Your task to perform on an android device: clear history in the chrome app Image 0: 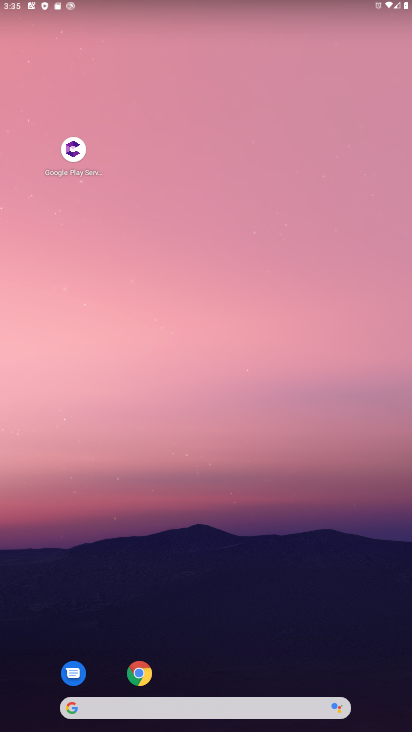
Step 0: click (142, 674)
Your task to perform on an android device: clear history in the chrome app Image 1: 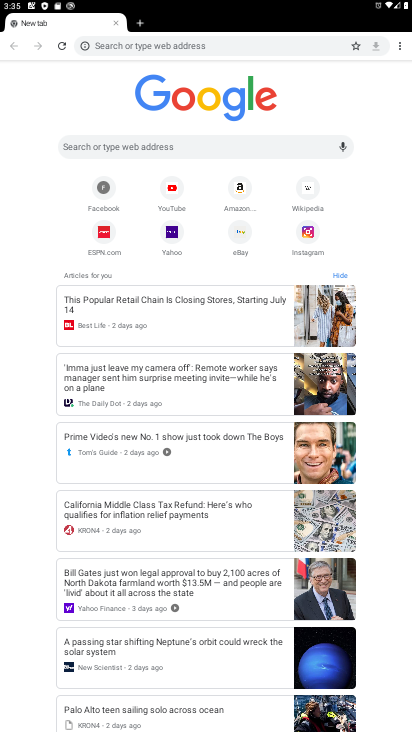
Step 1: click (398, 45)
Your task to perform on an android device: clear history in the chrome app Image 2: 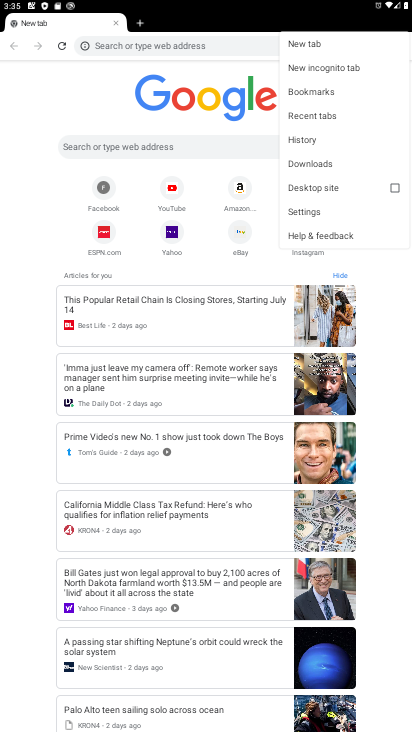
Step 2: click (311, 139)
Your task to perform on an android device: clear history in the chrome app Image 3: 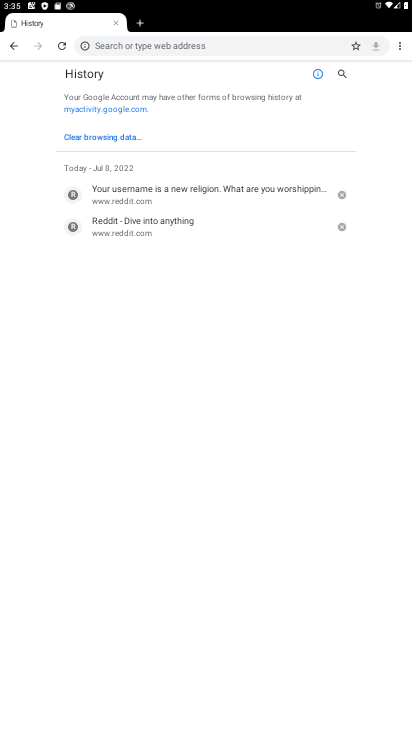
Step 3: click (105, 136)
Your task to perform on an android device: clear history in the chrome app Image 4: 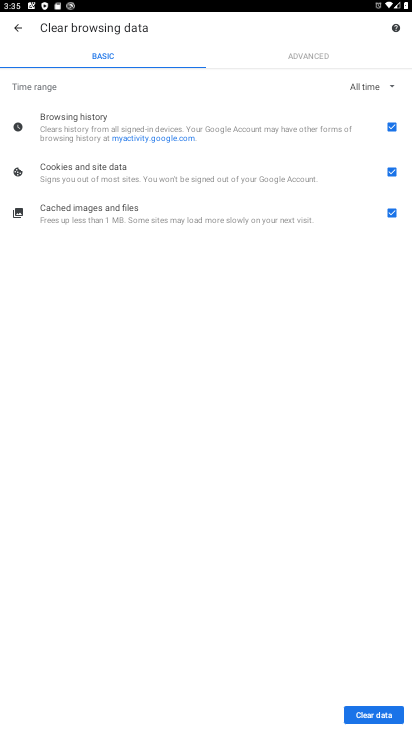
Step 4: click (360, 718)
Your task to perform on an android device: clear history in the chrome app Image 5: 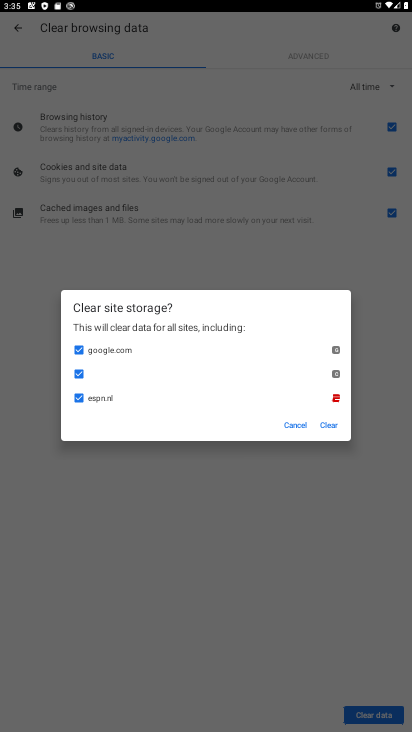
Step 5: click (328, 429)
Your task to perform on an android device: clear history in the chrome app Image 6: 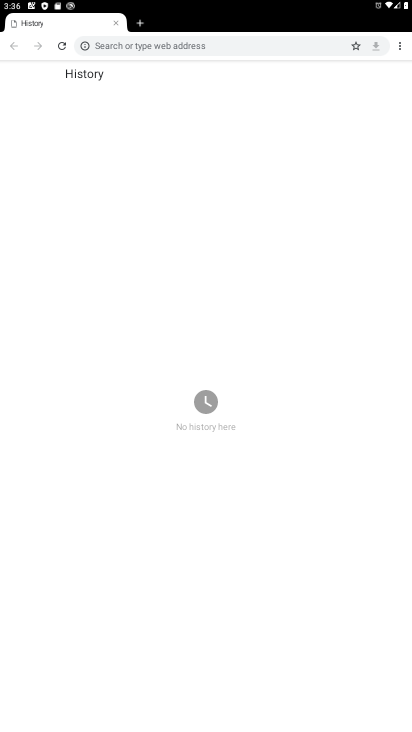
Step 6: task complete